Your task to perform on an android device: Go to Amazon Image 0: 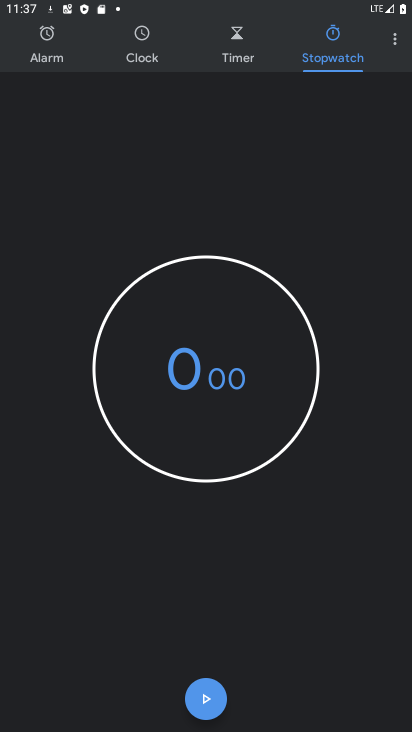
Step 0: press home button
Your task to perform on an android device: Go to Amazon Image 1: 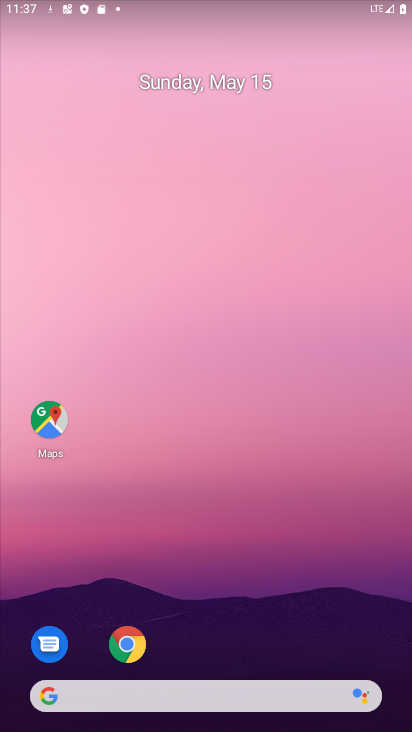
Step 1: drag from (208, 707) to (173, 283)
Your task to perform on an android device: Go to Amazon Image 2: 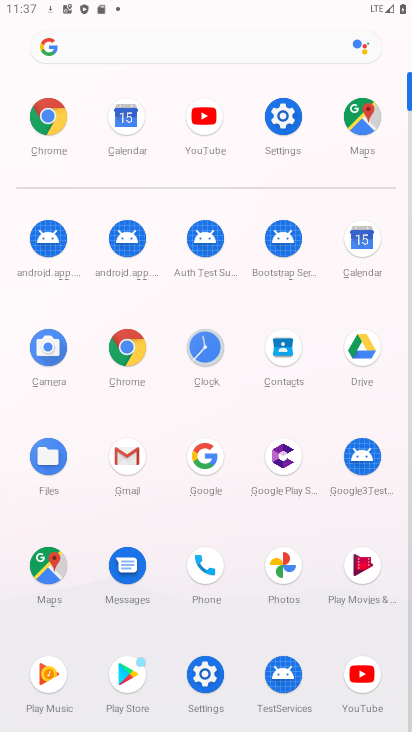
Step 2: click (58, 121)
Your task to perform on an android device: Go to Amazon Image 3: 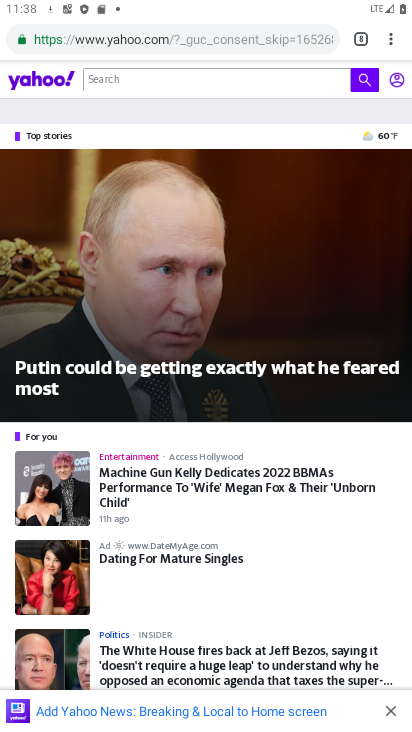
Step 3: click (363, 30)
Your task to perform on an android device: Go to Amazon Image 4: 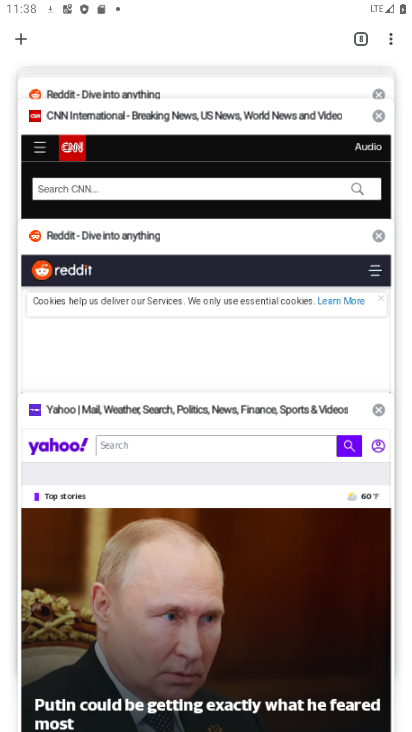
Step 4: click (21, 29)
Your task to perform on an android device: Go to Amazon Image 5: 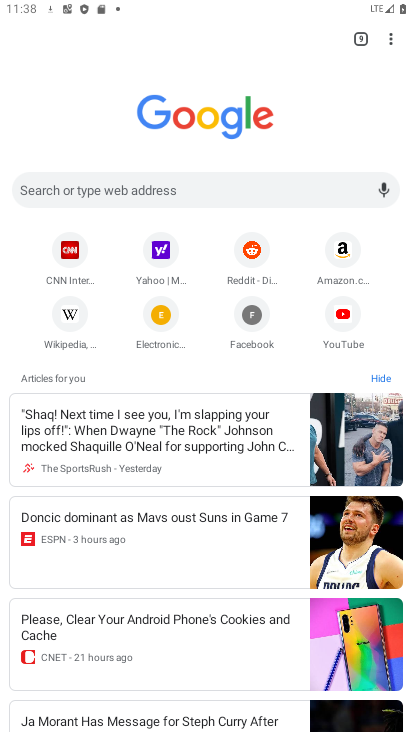
Step 5: click (348, 259)
Your task to perform on an android device: Go to Amazon Image 6: 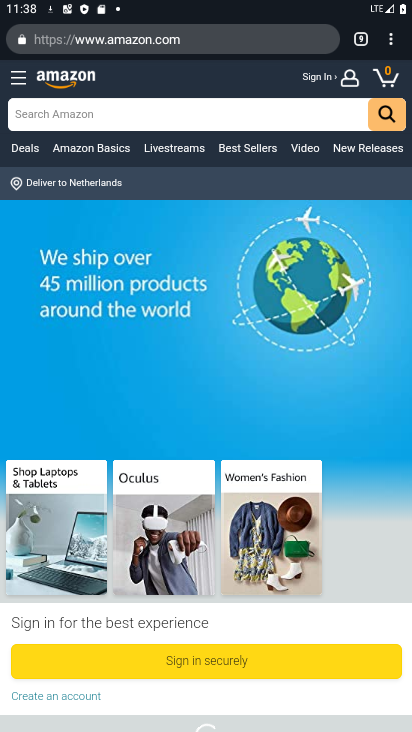
Step 6: task complete